Your task to perform on an android device: Clear the shopping cart on walmart.com. Add razer thresher to the cart on walmart.com, then select checkout. Image 0: 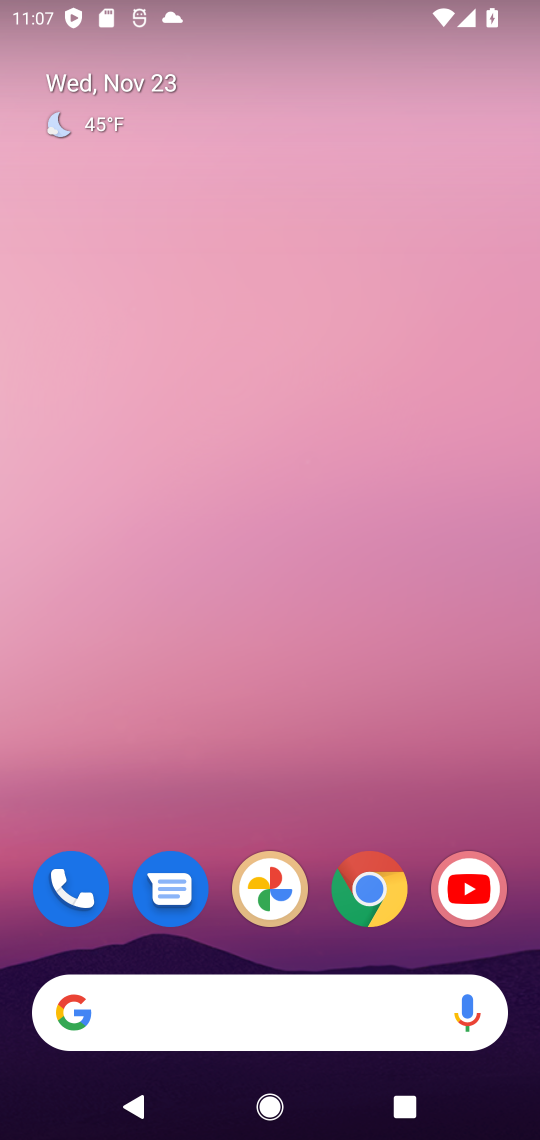
Step 0: click (371, 886)
Your task to perform on an android device: Clear the shopping cart on walmart.com. Add razer thresher to the cart on walmart.com, then select checkout. Image 1: 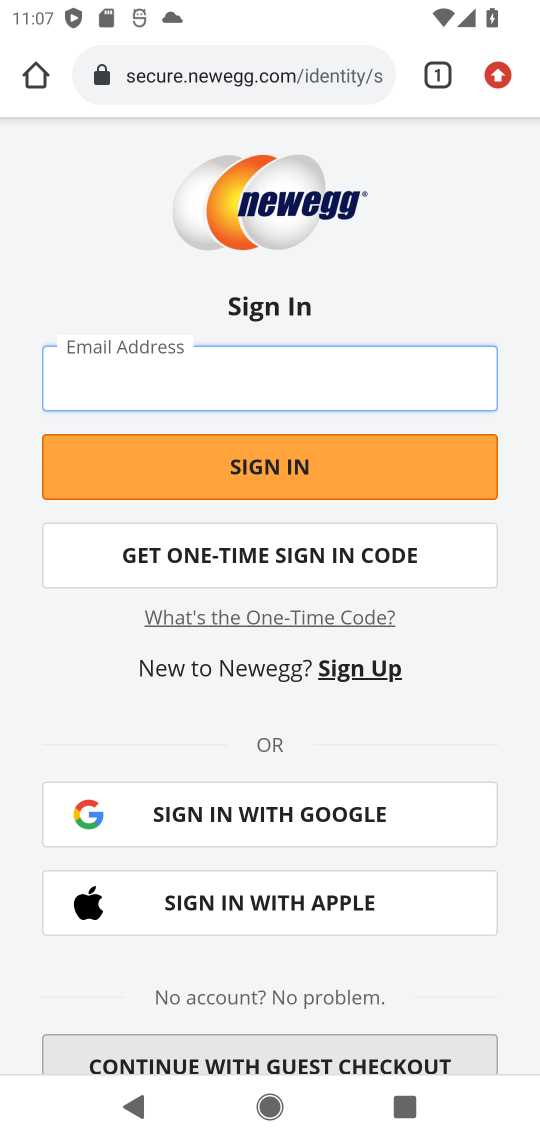
Step 1: click (192, 74)
Your task to perform on an android device: Clear the shopping cart on walmart.com. Add razer thresher to the cart on walmart.com, then select checkout. Image 2: 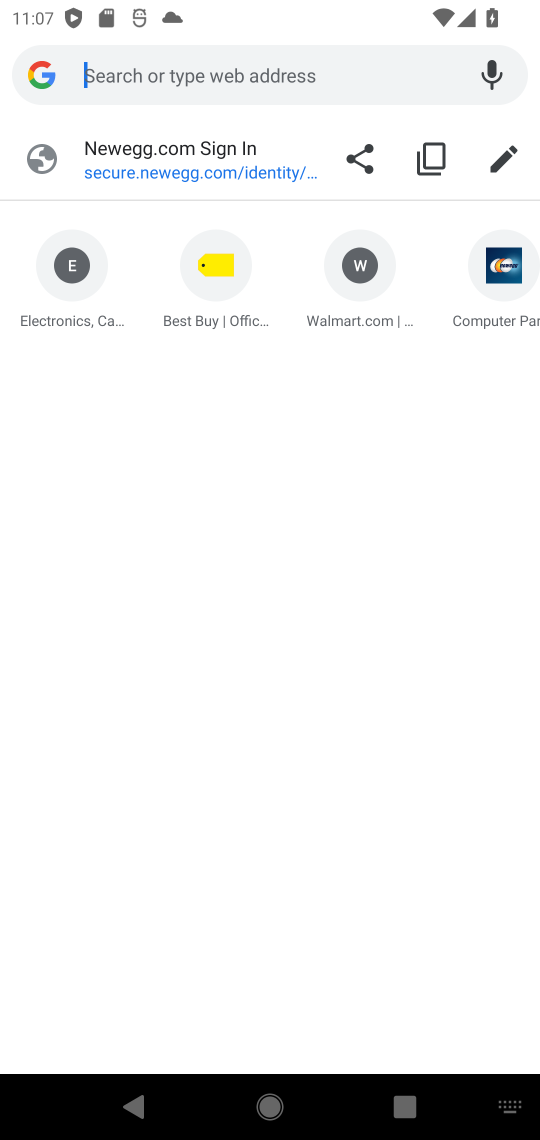
Step 2: click (364, 286)
Your task to perform on an android device: Clear the shopping cart on walmart.com. Add razer thresher to the cart on walmart.com, then select checkout. Image 3: 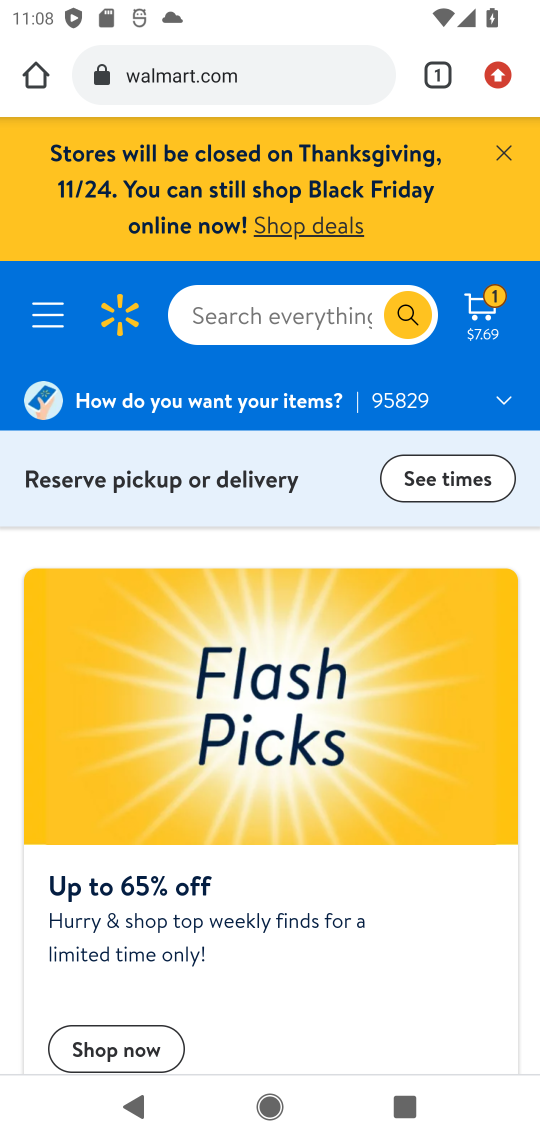
Step 3: click (485, 312)
Your task to perform on an android device: Clear the shopping cart on walmart.com. Add razer thresher to the cart on walmart.com, then select checkout. Image 4: 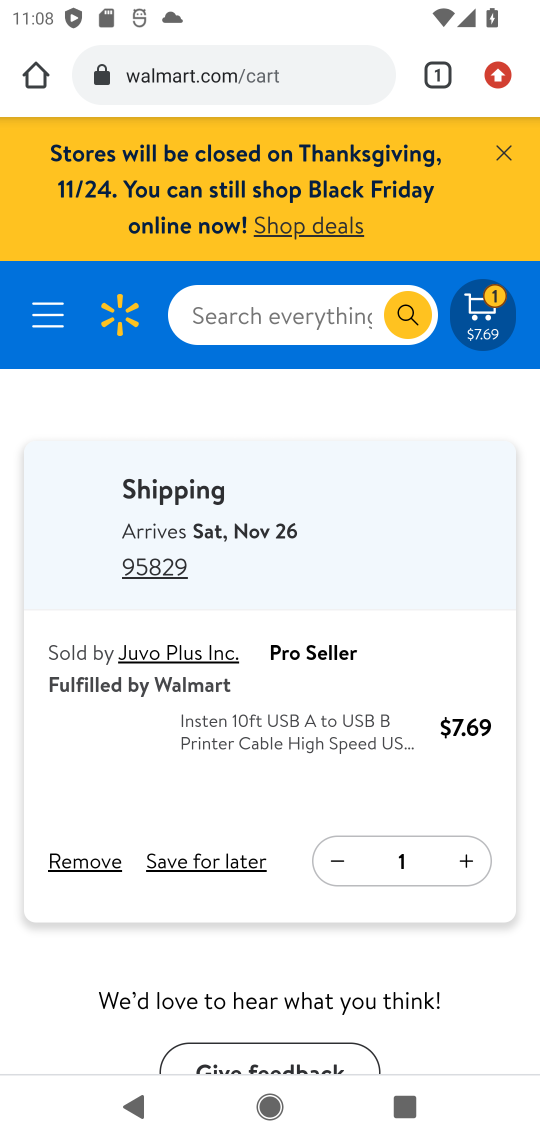
Step 4: click (86, 864)
Your task to perform on an android device: Clear the shopping cart on walmart.com. Add razer thresher to the cart on walmart.com, then select checkout. Image 5: 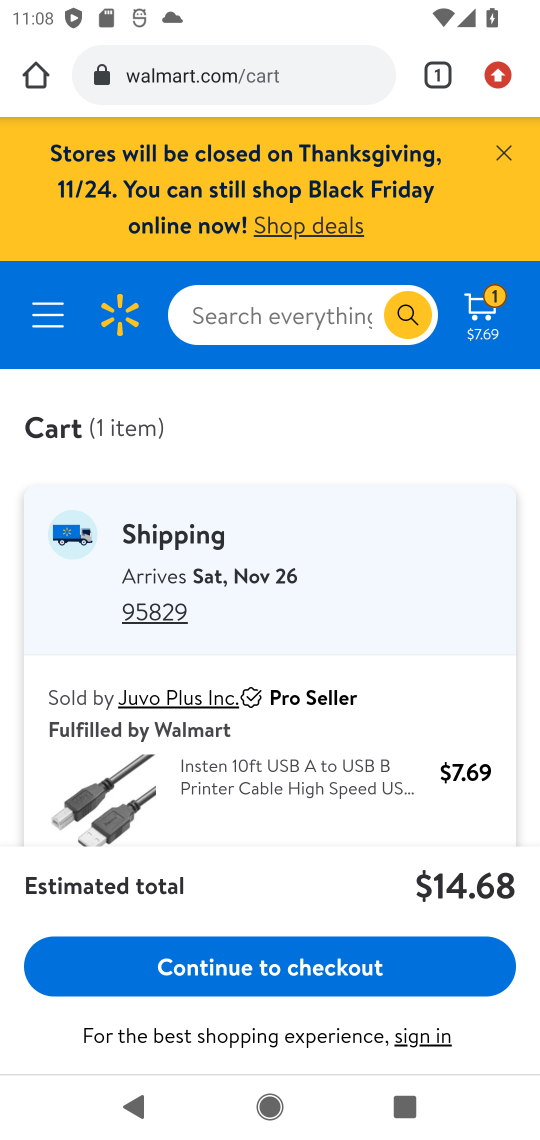
Step 5: drag from (86, 864) to (176, 483)
Your task to perform on an android device: Clear the shopping cart on walmart.com. Add razer thresher to the cart on walmart.com, then select checkout. Image 6: 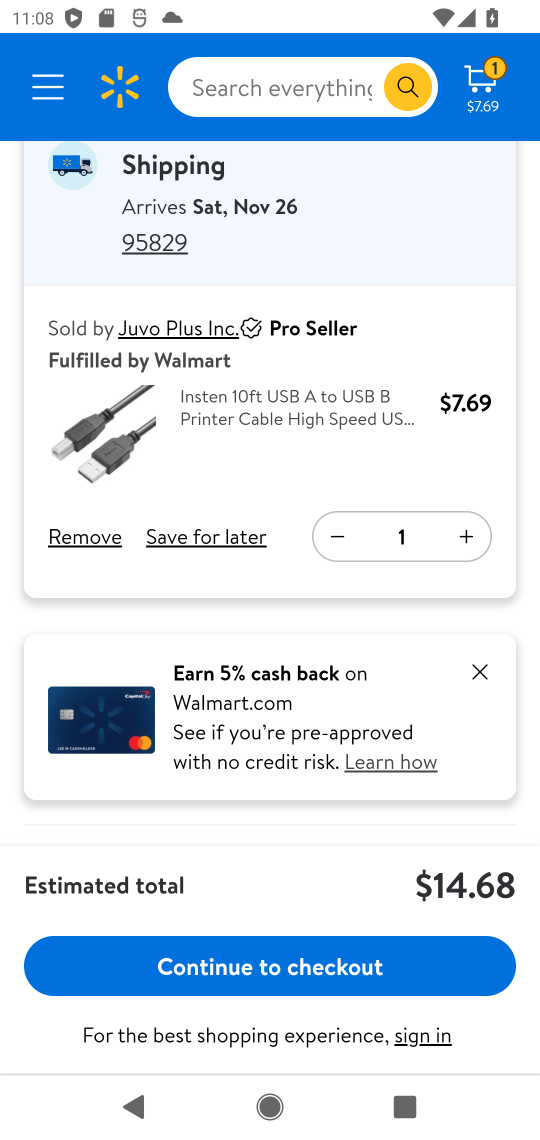
Step 6: click (102, 541)
Your task to perform on an android device: Clear the shopping cart on walmart.com. Add razer thresher to the cart on walmart.com, then select checkout. Image 7: 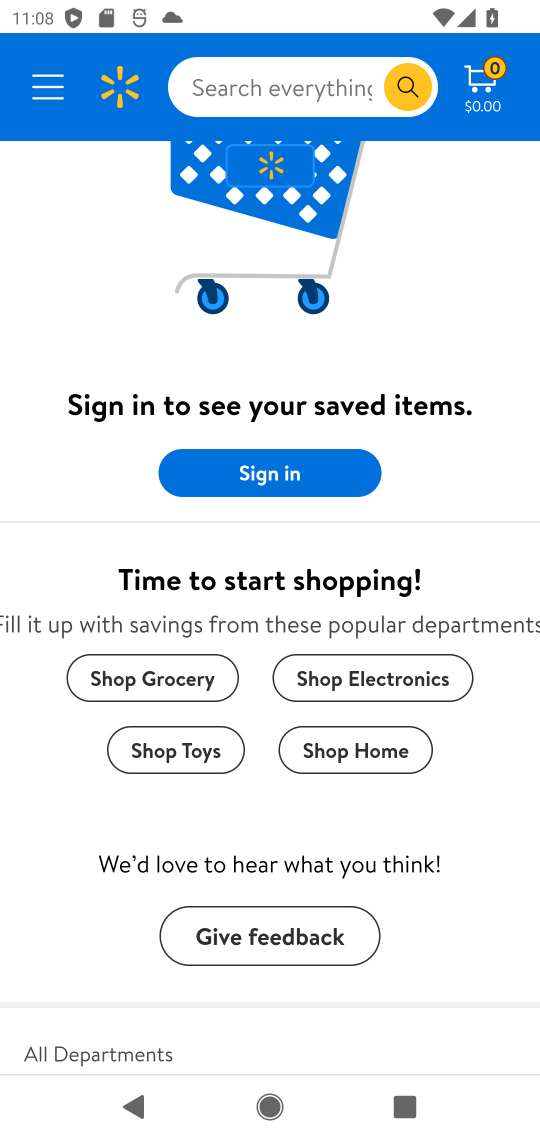
Step 7: click (400, 93)
Your task to perform on an android device: Clear the shopping cart on walmart.com. Add razer thresher to the cart on walmart.com, then select checkout. Image 8: 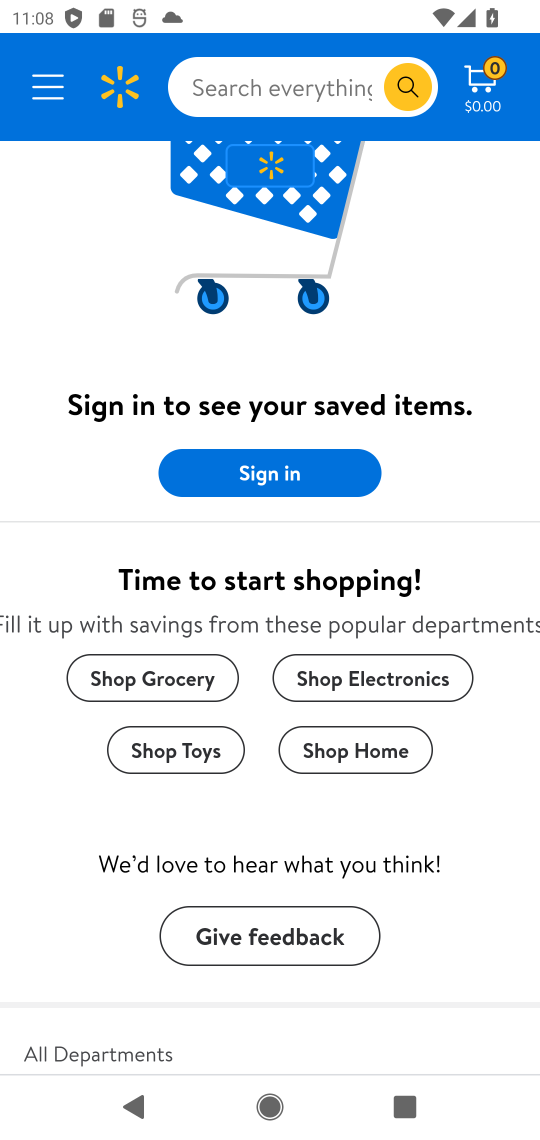
Step 8: click (402, 93)
Your task to perform on an android device: Clear the shopping cart on walmart.com. Add razer thresher to the cart on walmart.com, then select checkout. Image 9: 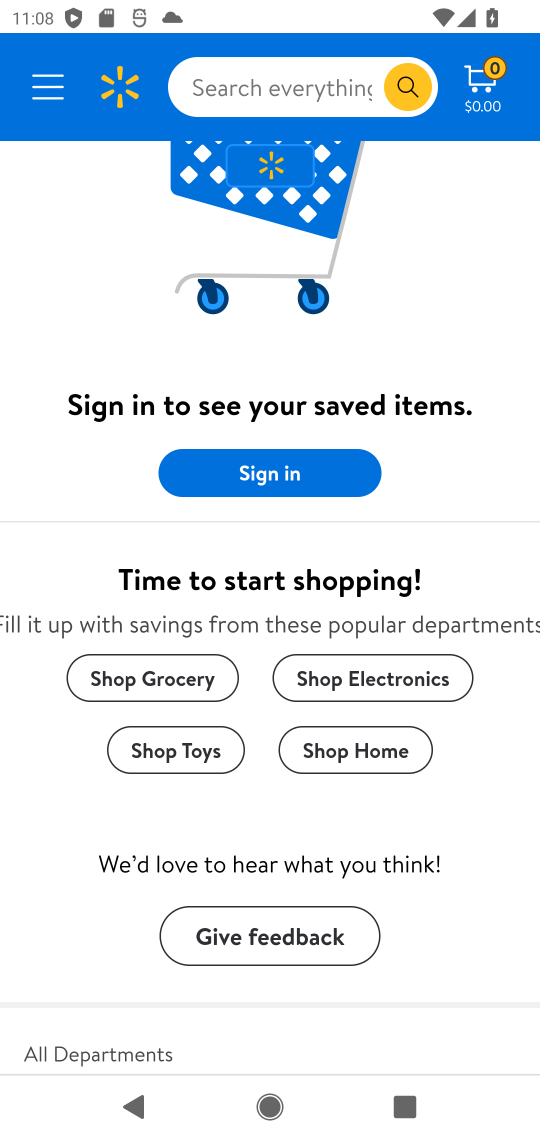
Step 9: click (272, 82)
Your task to perform on an android device: Clear the shopping cart on walmart.com. Add razer thresher to the cart on walmart.com, then select checkout. Image 10: 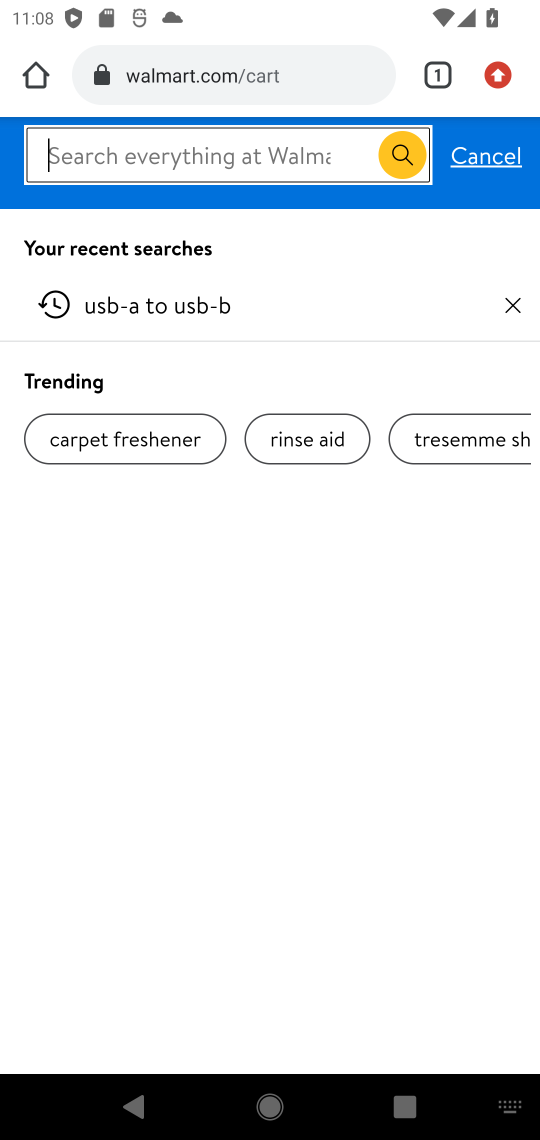
Step 10: type "razer thresher"
Your task to perform on an android device: Clear the shopping cart on walmart.com. Add razer thresher to the cart on walmart.com, then select checkout. Image 11: 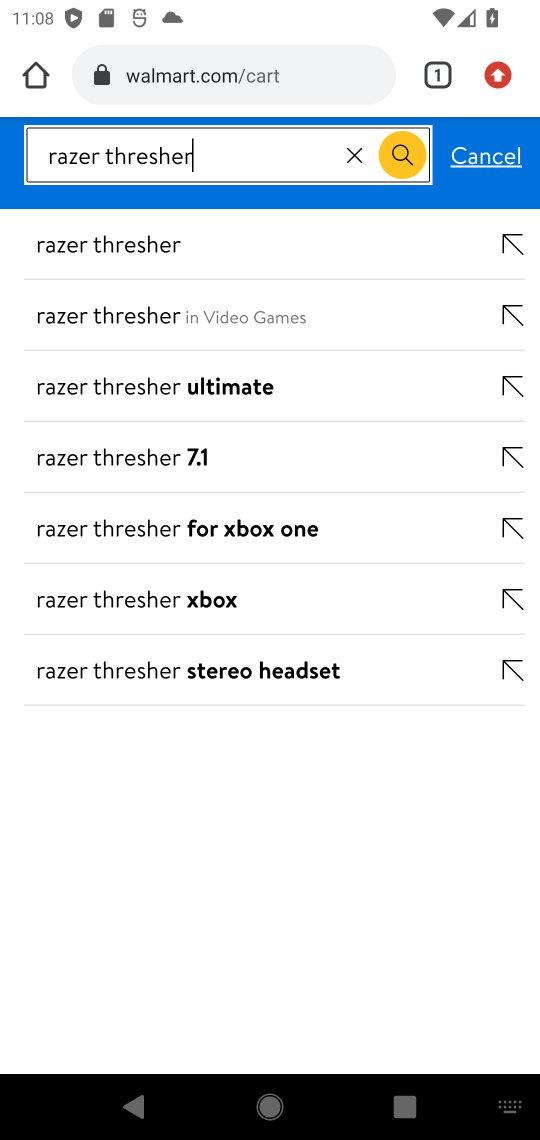
Step 11: click (74, 250)
Your task to perform on an android device: Clear the shopping cart on walmart.com. Add razer thresher to the cart on walmart.com, then select checkout. Image 12: 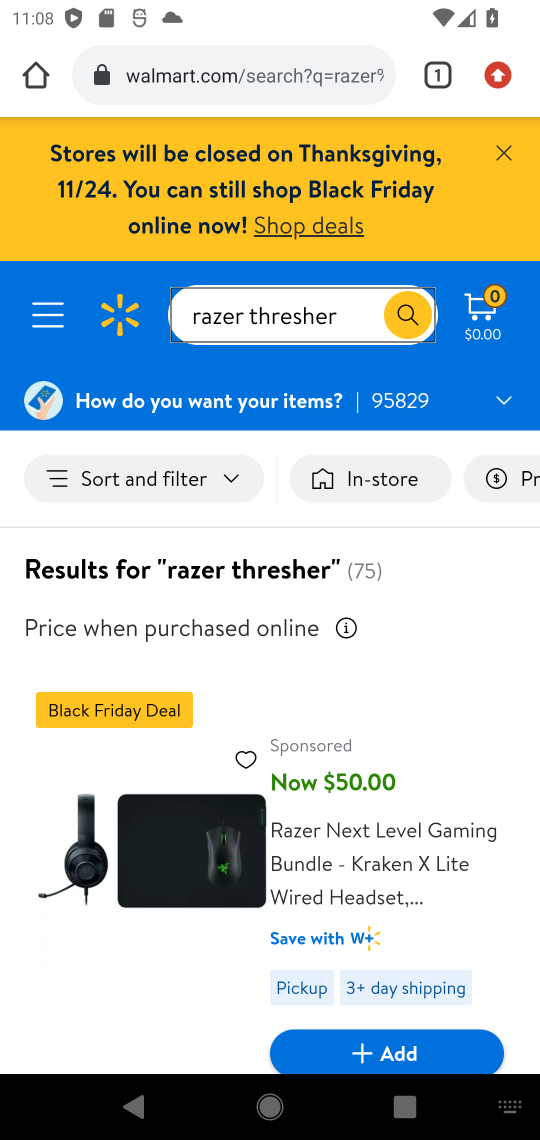
Step 12: drag from (176, 875) to (194, 625)
Your task to perform on an android device: Clear the shopping cart on walmart.com. Add razer thresher to the cart on walmart.com, then select checkout. Image 13: 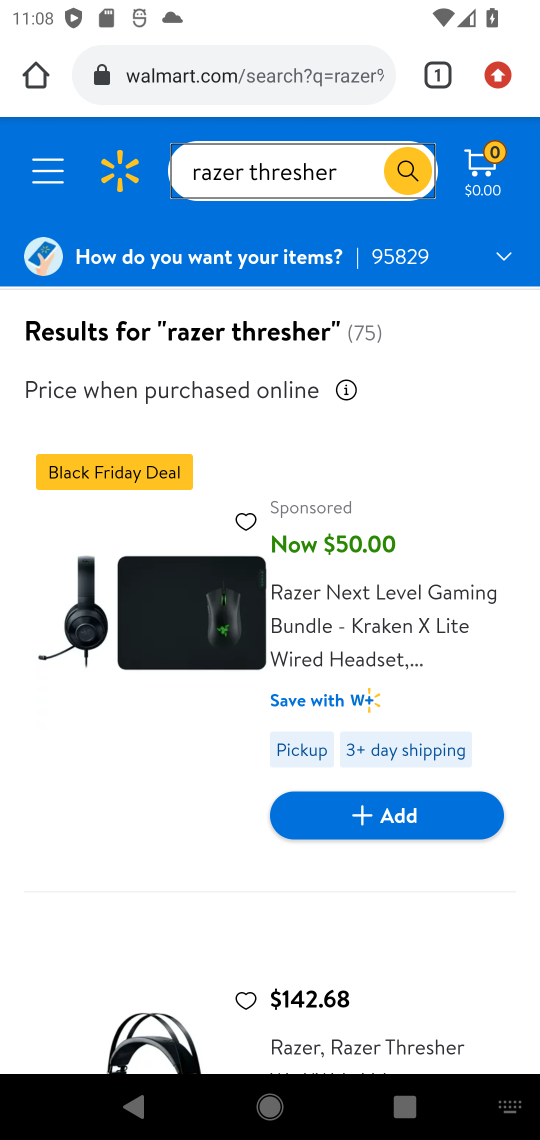
Step 13: drag from (204, 837) to (216, 595)
Your task to perform on an android device: Clear the shopping cart on walmart.com. Add razer thresher to the cart on walmart.com, then select checkout. Image 14: 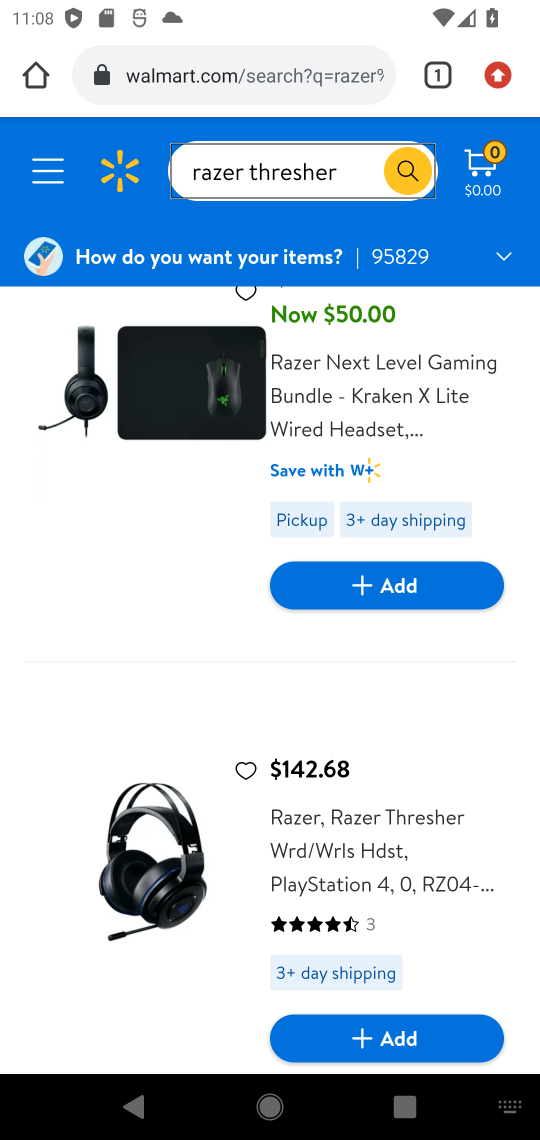
Step 14: click (386, 1044)
Your task to perform on an android device: Clear the shopping cart on walmart.com. Add razer thresher to the cart on walmart.com, then select checkout. Image 15: 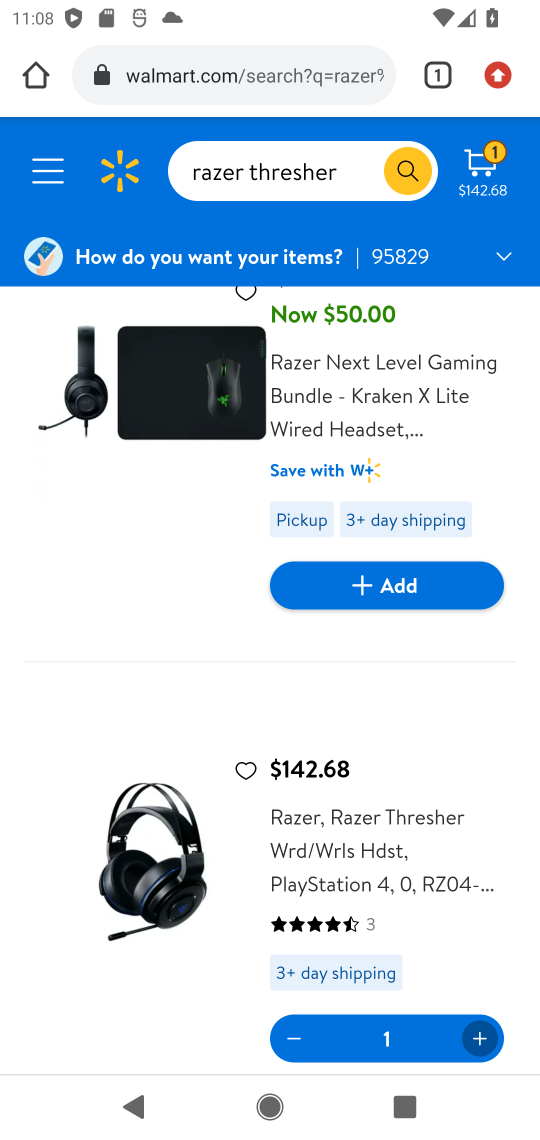
Step 15: click (490, 170)
Your task to perform on an android device: Clear the shopping cart on walmart.com. Add razer thresher to the cart on walmart.com, then select checkout. Image 16: 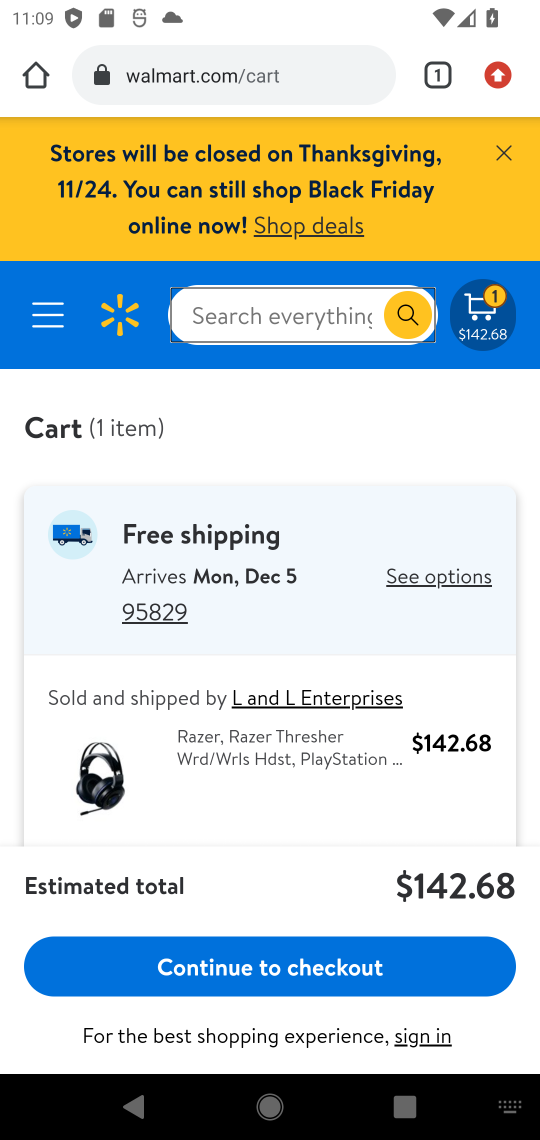
Step 16: drag from (270, 608) to (275, 371)
Your task to perform on an android device: Clear the shopping cart on walmart.com. Add razer thresher to the cart on walmart.com, then select checkout. Image 17: 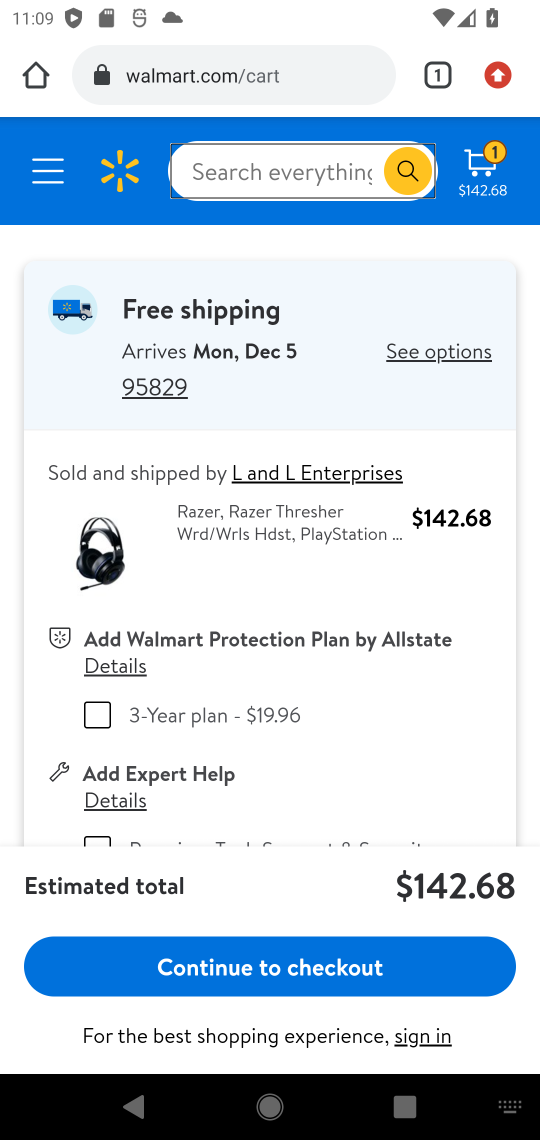
Step 17: click (240, 959)
Your task to perform on an android device: Clear the shopping cart on walmart.com. Add razer thresher to the cart on walmart.com, then select checkout. Image 18: 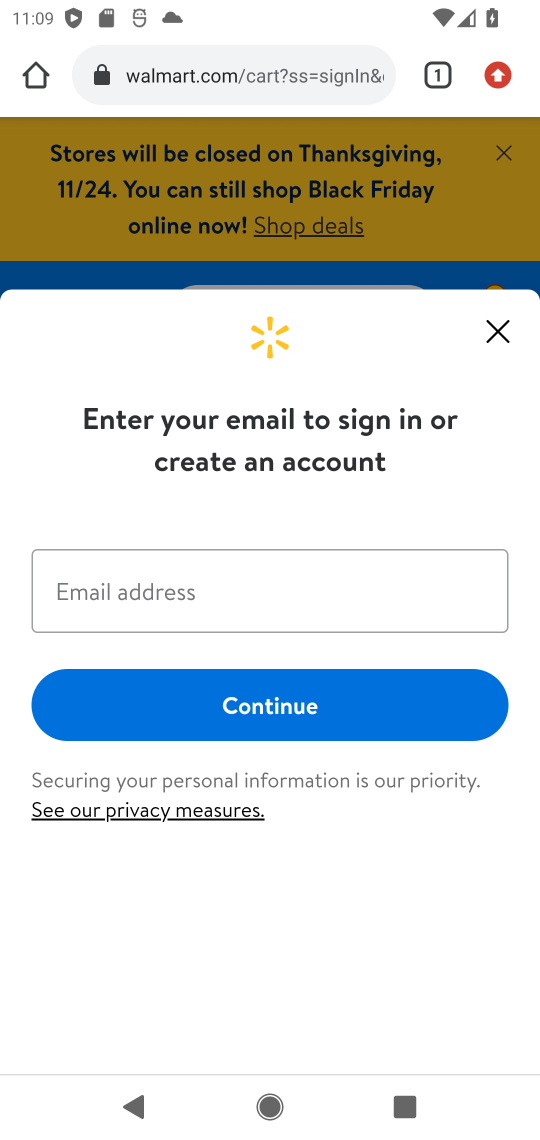
Step 18: task complete